Your task to perform on an android device: Add "lg ultragear" to the cart on bestbuy Image 0: 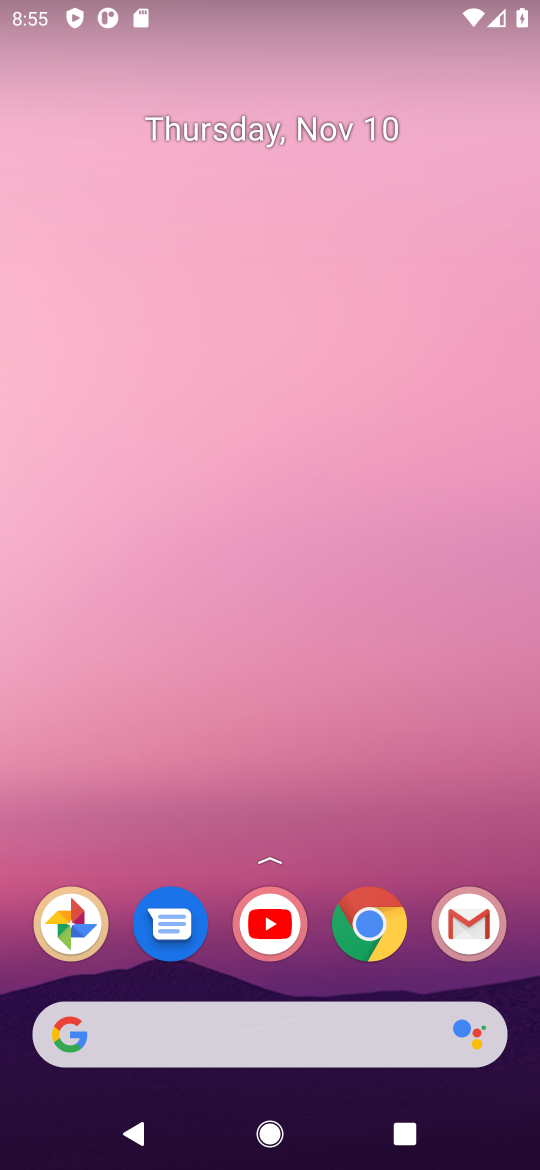
Step 0: click (363, 927)
Your task to perform on an android device: Add "lg ultragear" to the cart on bestbuy Image 1: 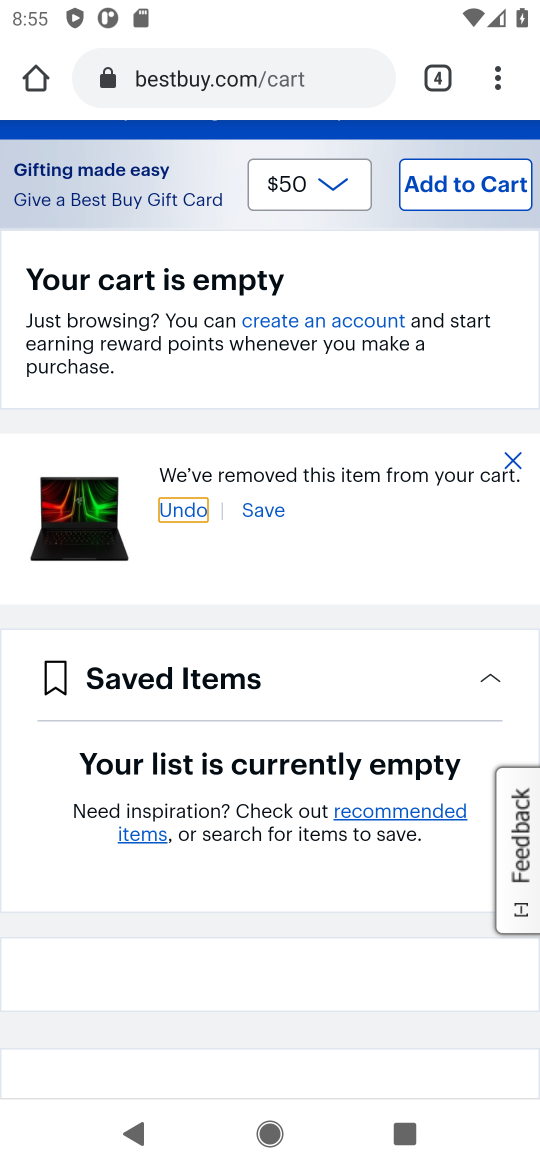
Step 1: drag from (290, 370) to (292, 929)
Your task to perform on an android device: Add "lg ultragear" to the cart on bestbuy Image 2: 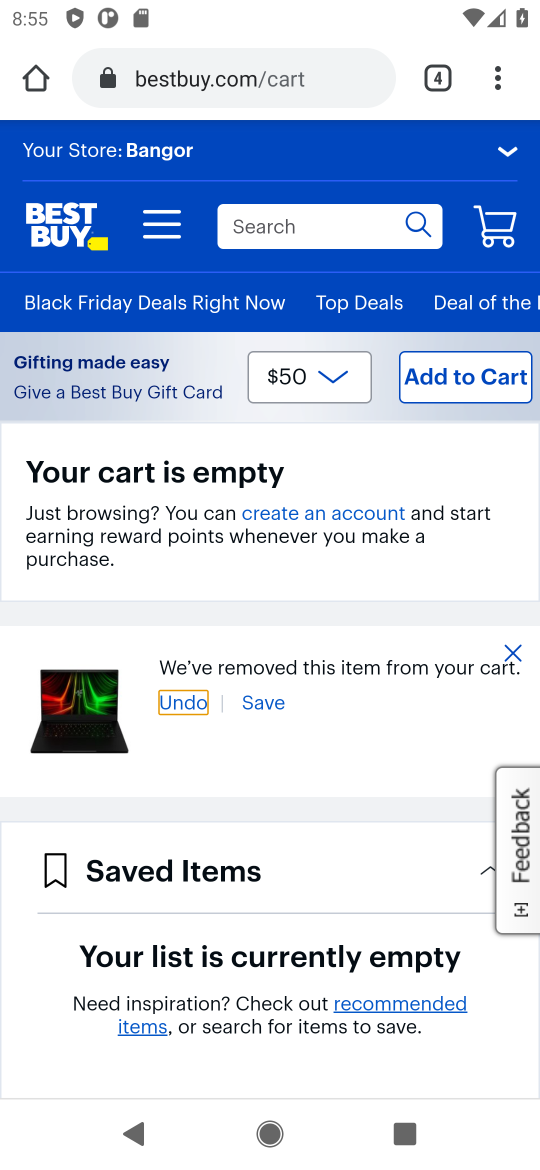
Step 2: click (263, 236)
Your task to perform on an android device: Add "lg ultragear" to the cart on bestbuy Image 3: 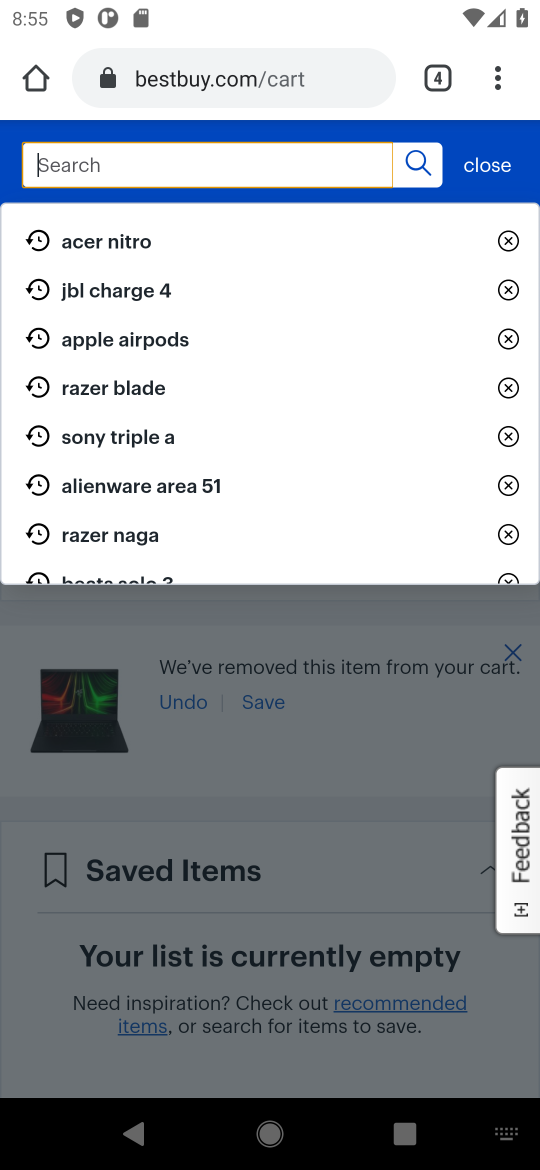
Step 3: type "lg ultragear"
Your task to perform on an android device: Add "lg ultragear" to the cart on bestbuy Image 4: 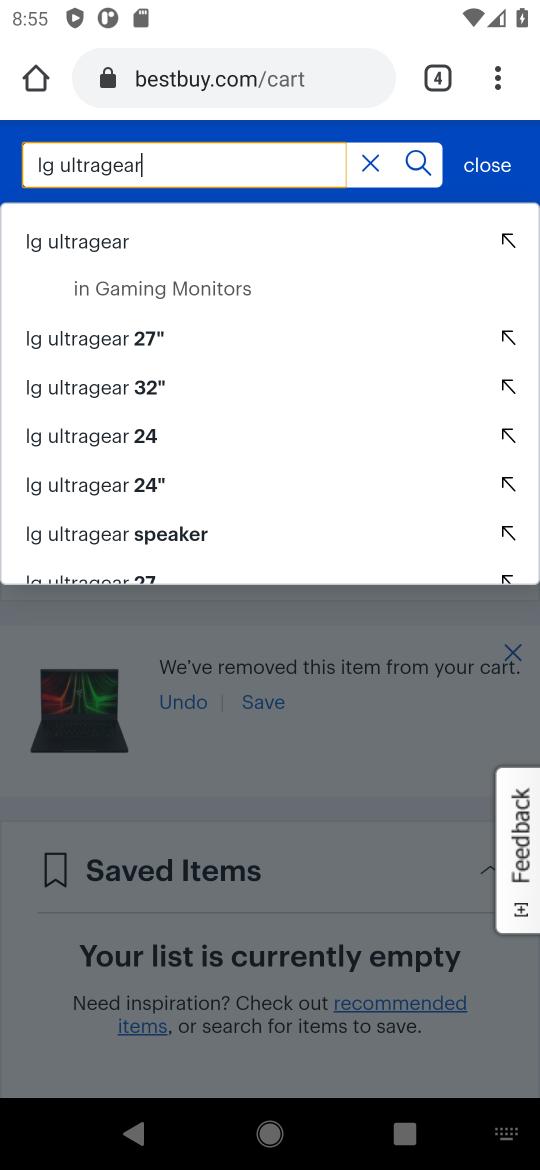
Step 4: click (78, 249)
Your task to perform on an android device: Add "lg ultragear" to the cart on bestbuy Image 5: 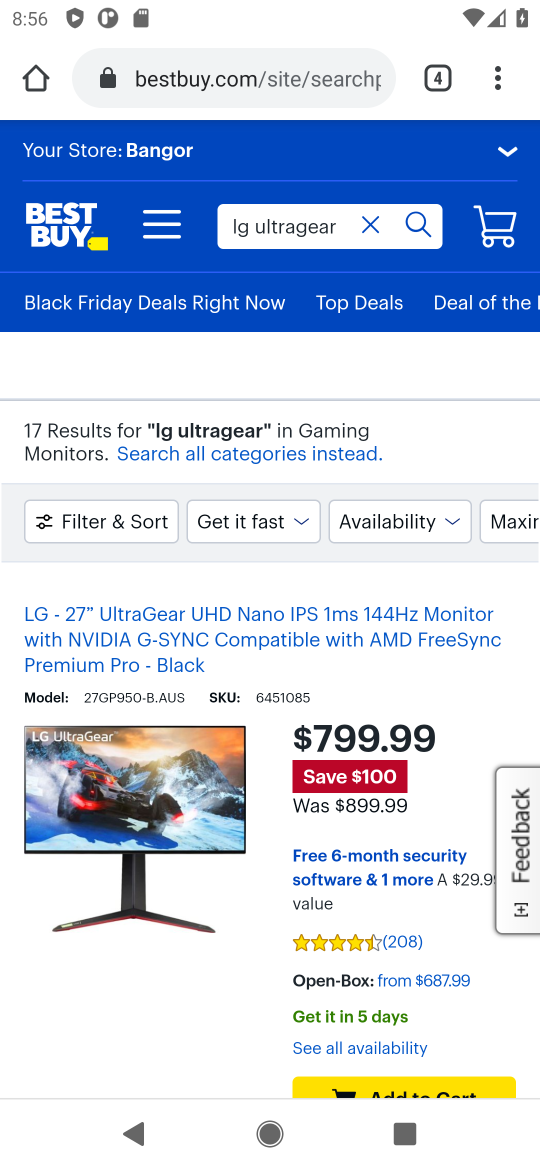
Step 5: drag from (196, 796) to (189, 510)
Your task to perform on an android device: Add "lg ultragear" to the cart on bestbuy Image 6: 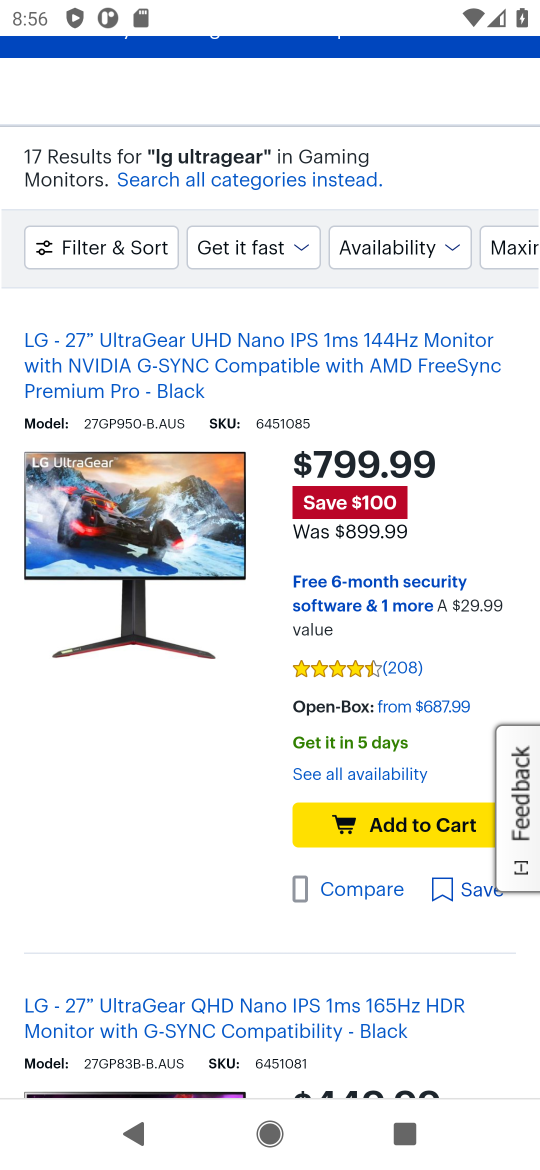
Step 6: click (389, 821)
Your task to perform on an android device: Add "lg ultragear" to the cart on bestbuy Image 7: 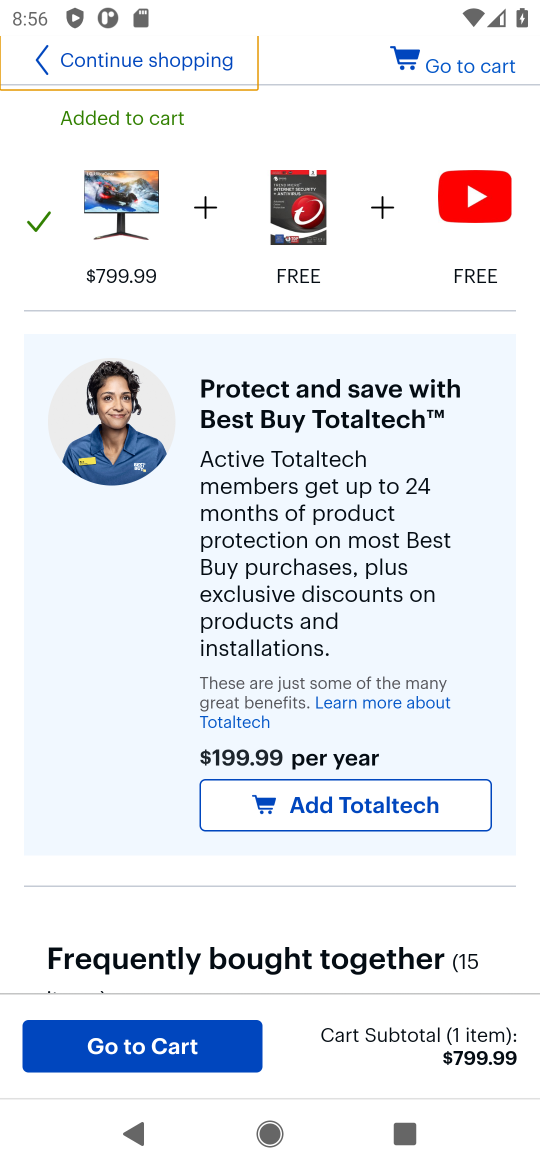
Step 7: task complete